Your task to perform on an android device: turn off location Image 0: 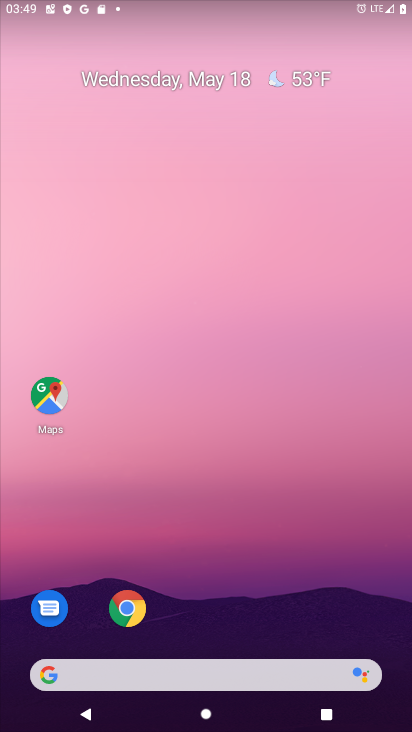
Step 0: drag from (303, 627) to (273, 6)
Your task to perform on an android device: turn off location Image 1: 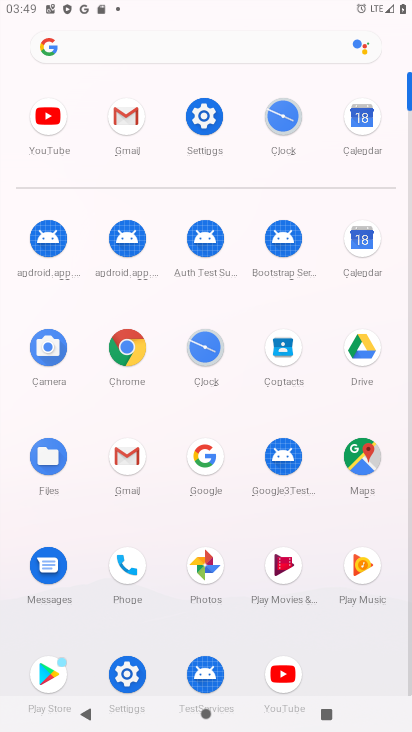
Step 1: click (192, 119)
Your task to perform on an android device: turn off location Image 2: 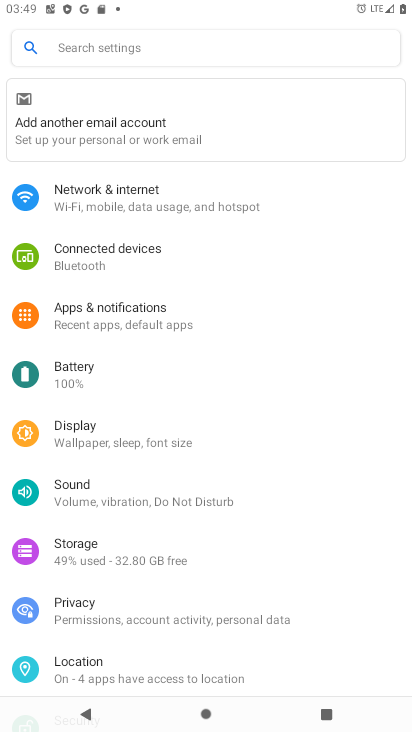
Step 2: click (63, 658)
Your task to perform on an android device: turn off location Image 3: 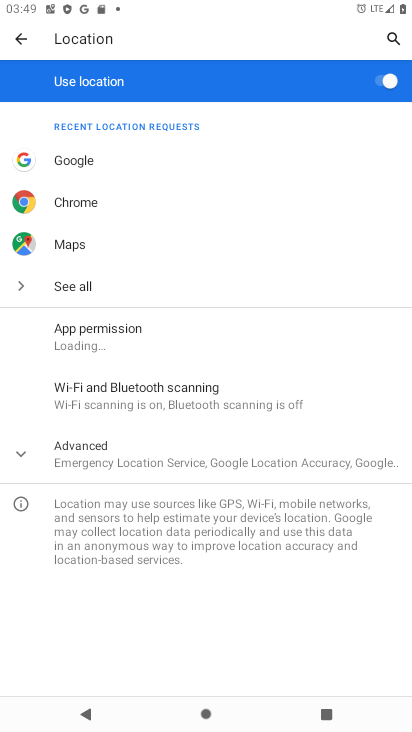
Step 3: click (382, 76)
Your task to perform on an android device: turn off location Image 4: 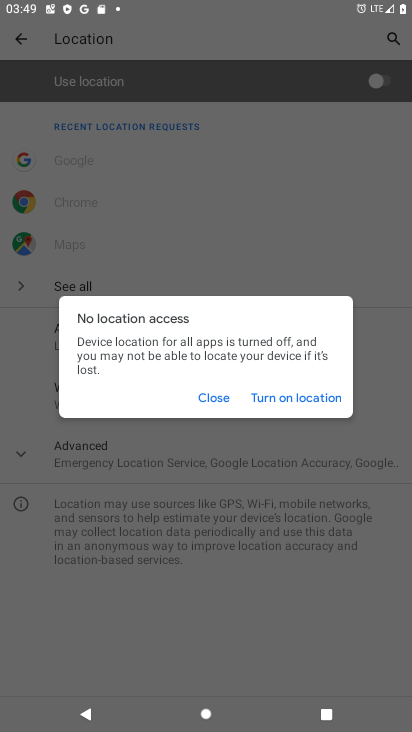
Step 4: click (221, 405)
Your task to perform on an android device: turn off location Image 5: 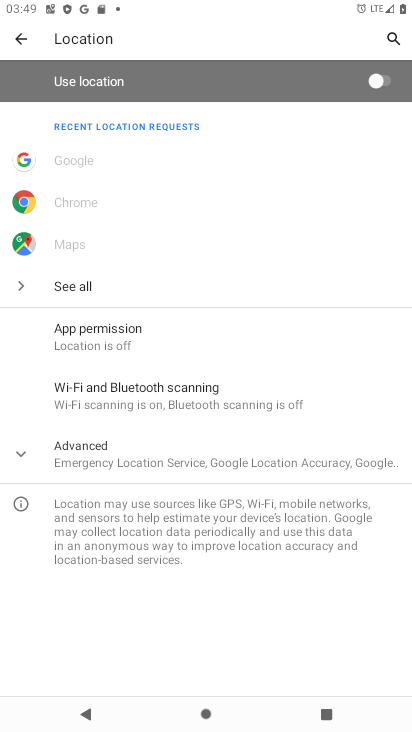
Step 5: task complete